Your task to perform on an android device: Open calendar and show me the third week of next month Image 0: 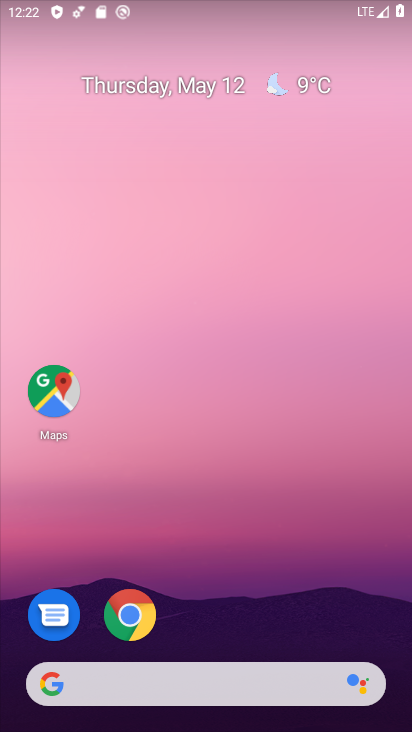
Step 0: drag from (261, 574) to (248, 79)
Your task to perform on an android device: Open calendar and show me the third week of next month Image 1: 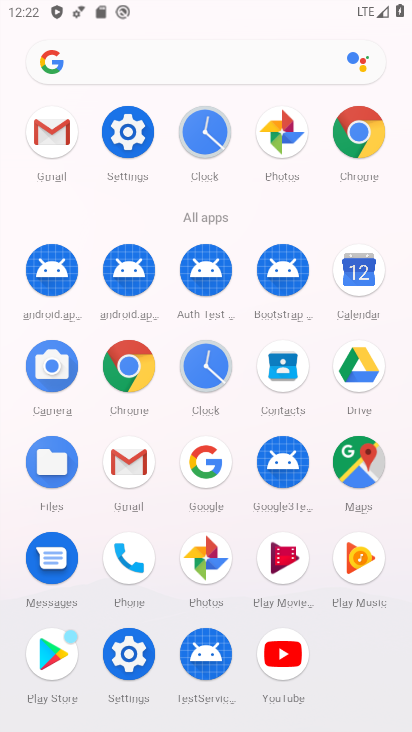
Step 1: click (361, 274)
Your task to perform on an android device: Open calendar and show me the third week of next month Image 2: 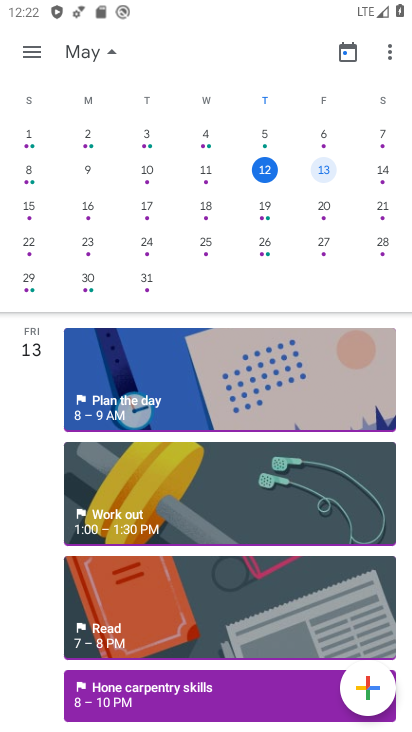
Step 2: click (348, 54)
Your task to perform on an android device: Open calendar and show me the third week of next month Image 3: 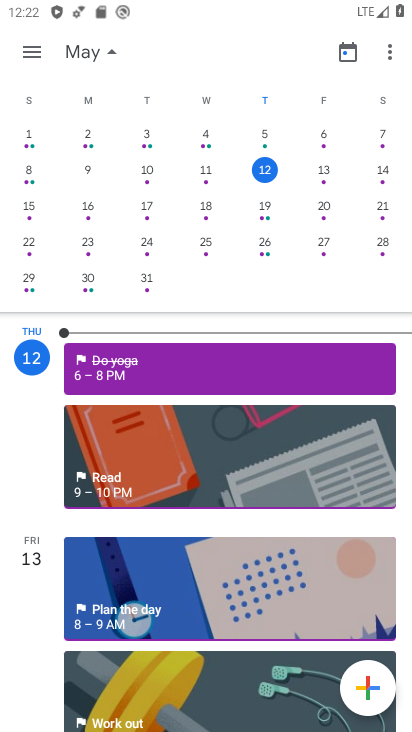
Step 3: drag from (356, 194) to (0, 203)
Your task to perform on an android device: Open calendar and show me the third week of next month Image 4: 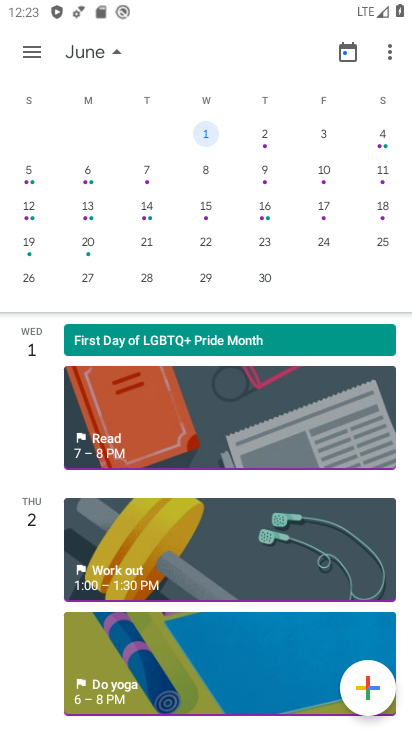
Step 4: click (88, 242)
Your task to perform on an android device: Open calendar and show me the third week of next month Image 5: 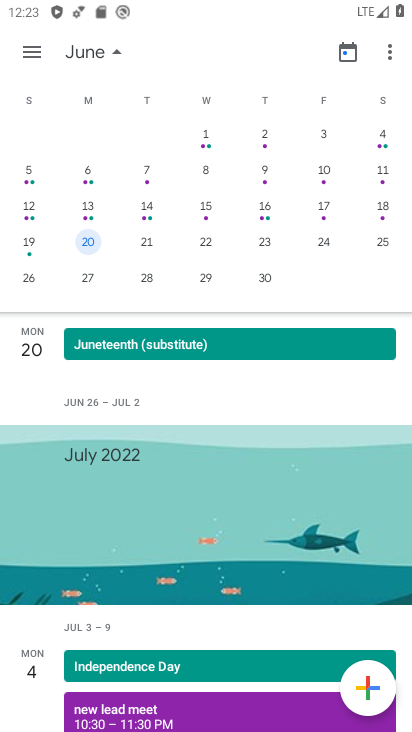
Step 5: click (39, 52)
Your task to perform on an android device: Open calendar and show me the third week of next month Image 6: 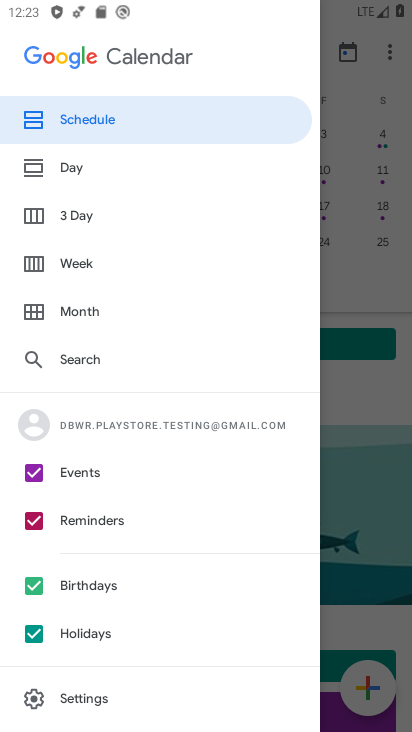
Step 6: click (67, 255)
Your task to perform on an android device: Open calendar and show me the third week of next month Image 7: 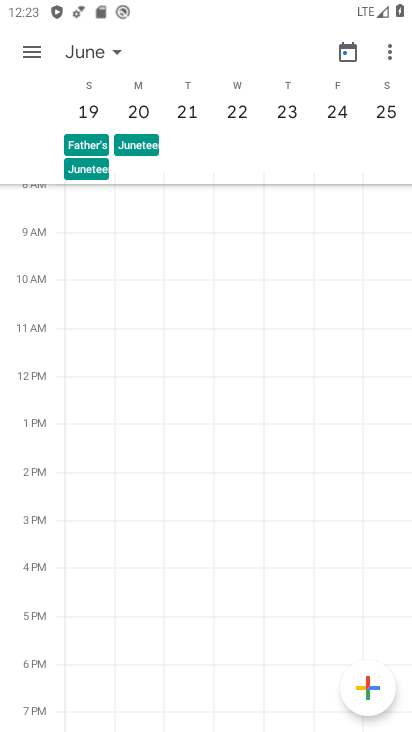
Step 7: task complete